Your task to perform on an android device: turn on the 24-hour format for clock Image 0: 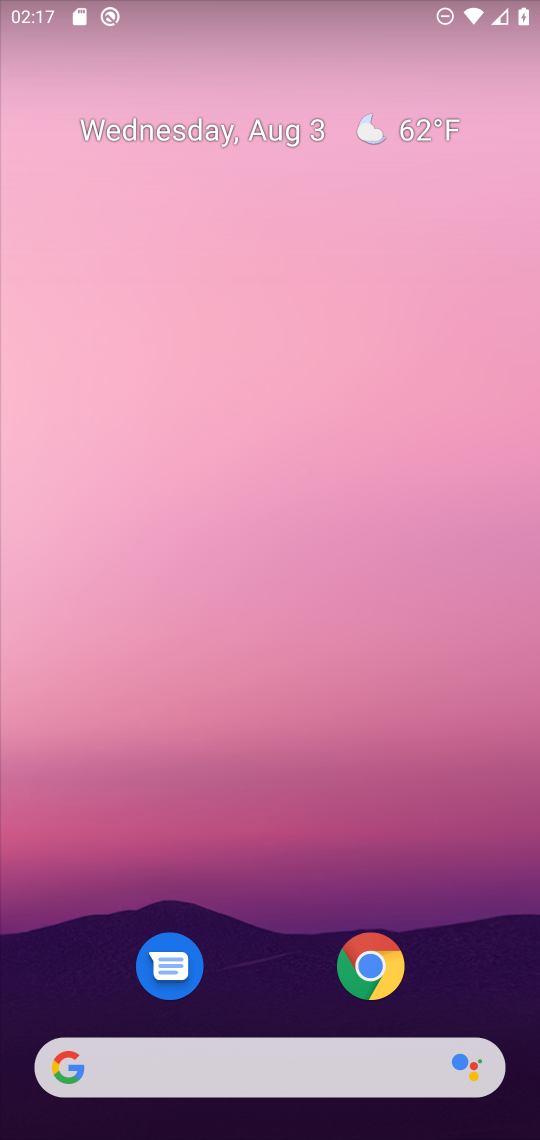
Step 0: drag from (265, 969) to (285, 439)
Your task to perform on an android device: turn on the 24-hour format for clock Image 1: 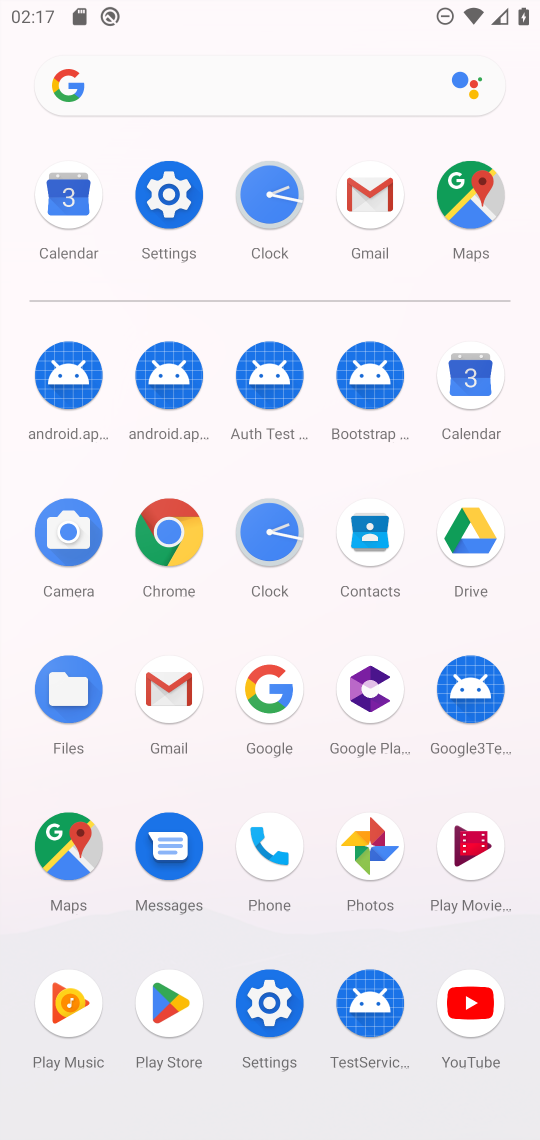
Step 1: click (253, 203)
Your task to perform on an android device: turn on the 24-hour format for clock Image 2: 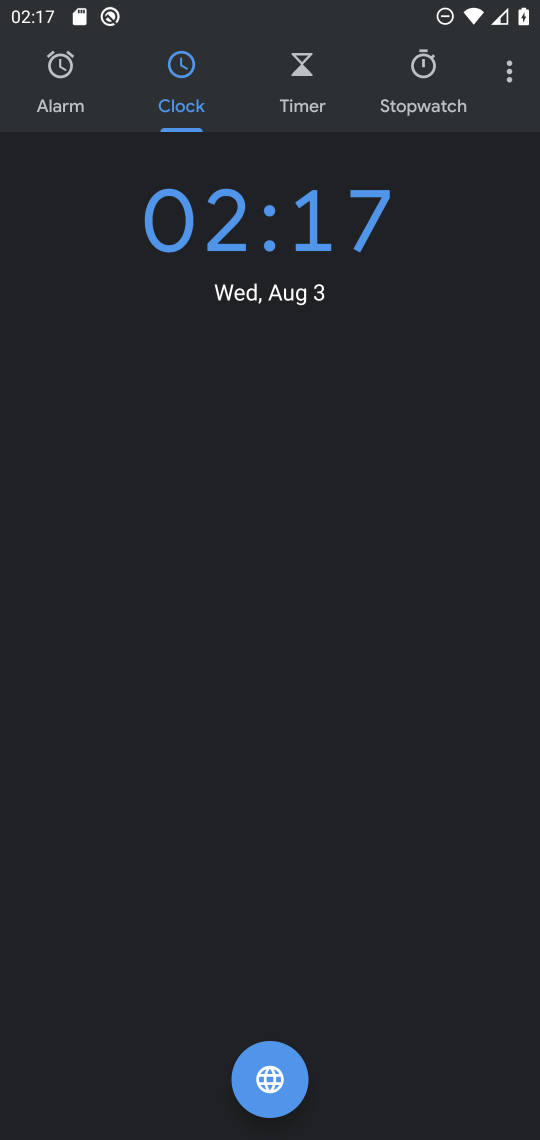
Step 2: click (498, 73)
Your task to perform on an android device: turn on the 24-hour format for clock Image 3: 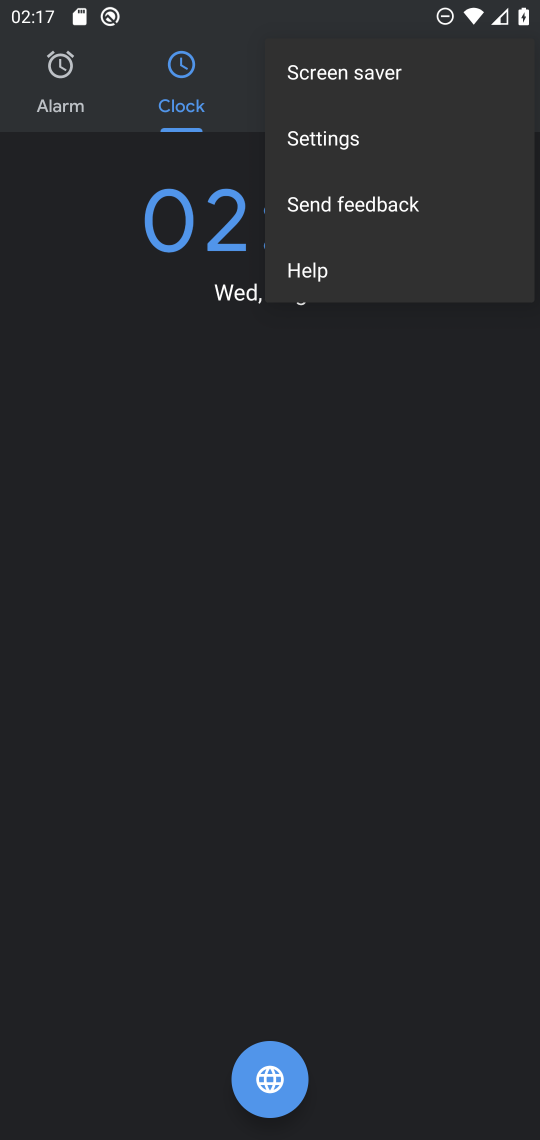
Step 3: click (350, 136)
Your task to perform on an android device: turn on the 24-hour format for clock Image 4: 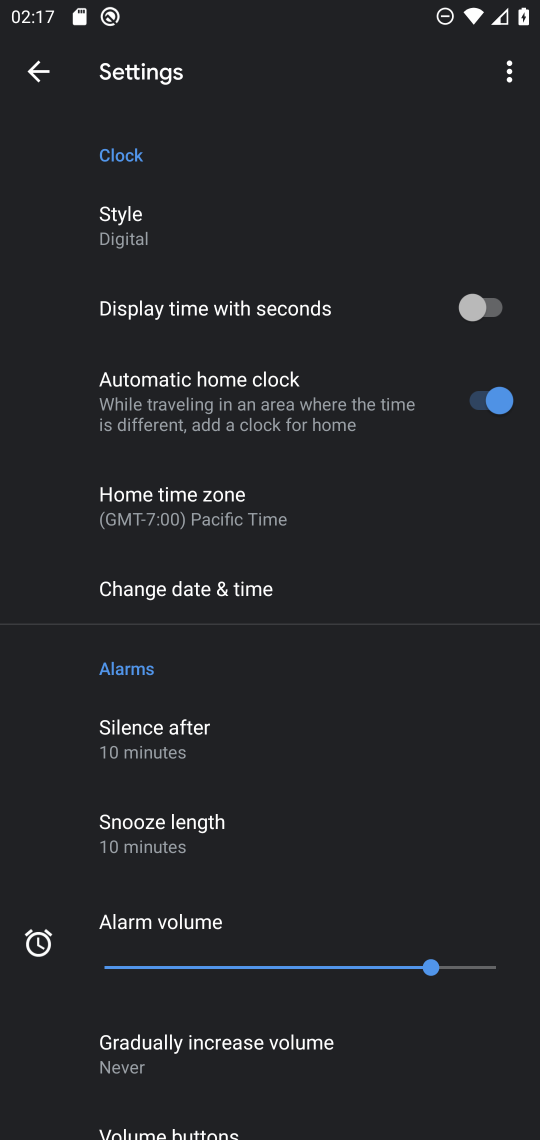
Step 4: click (261, 587)
Your task to perform on an android device: turn on the 24-hour format for clock Image 5: 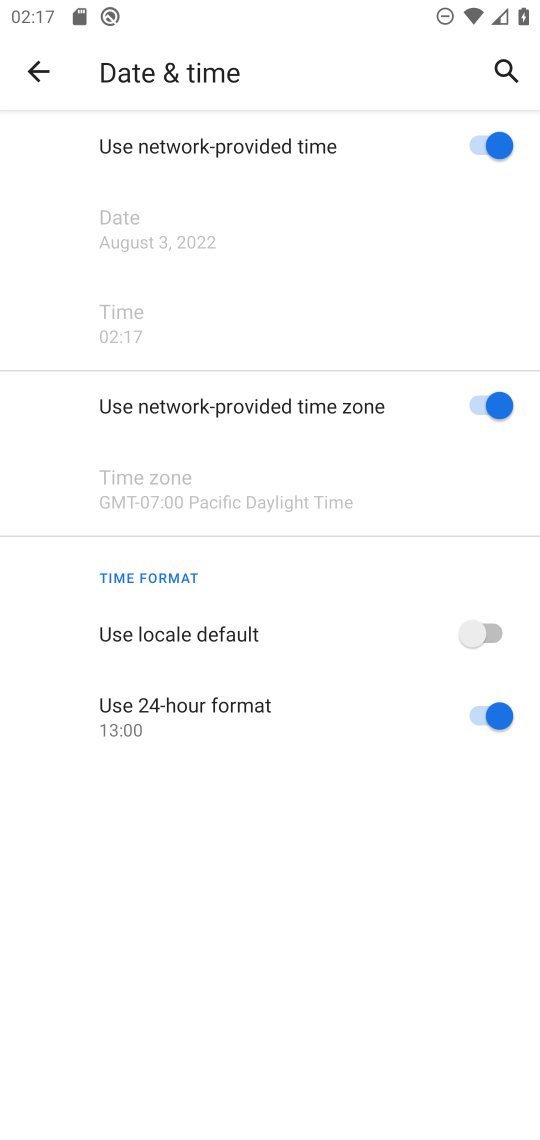
Step 5: task complete